Your task to perform on an android device: Open calendar and show me the third week of next month Image 0: 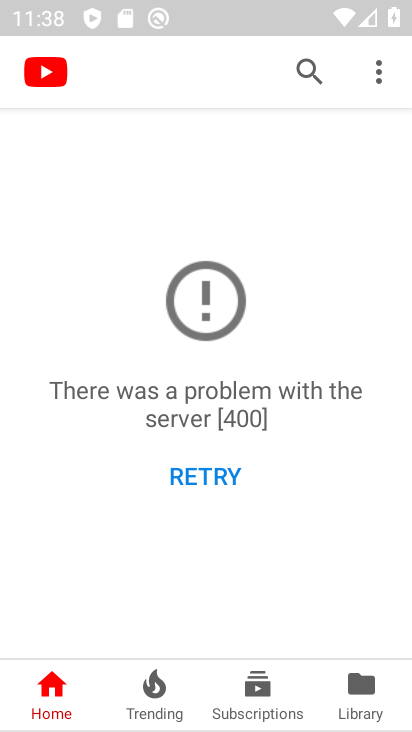
Step 0: press home button
Your task to perform on an android device: Open calendar and show me the third week of next month Image 1: 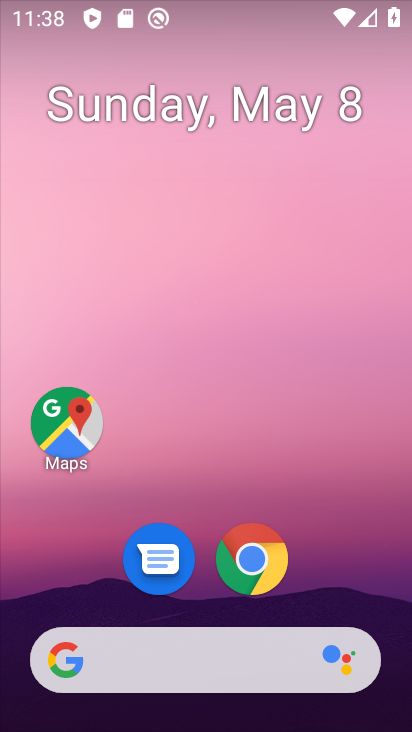
Step 1: drag from (208, 606) to (214, 67)
Your task to perform on an android device: Open calendar and show me the third week of next month Image 2: 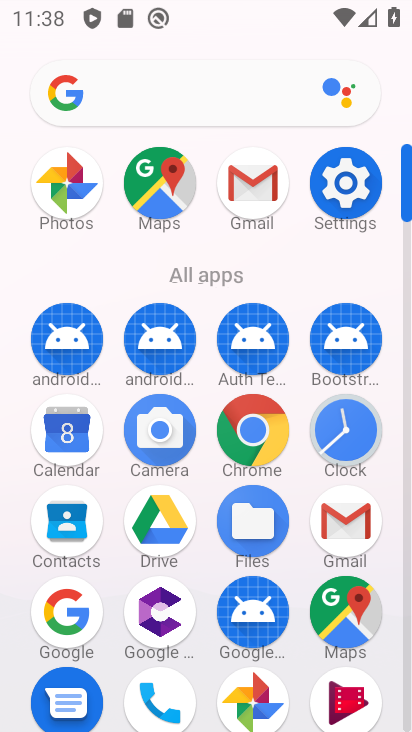
Step 2: click (61, 433)
Your task to perform on an android device: Open calendar and show me the third week of next month Image 3: 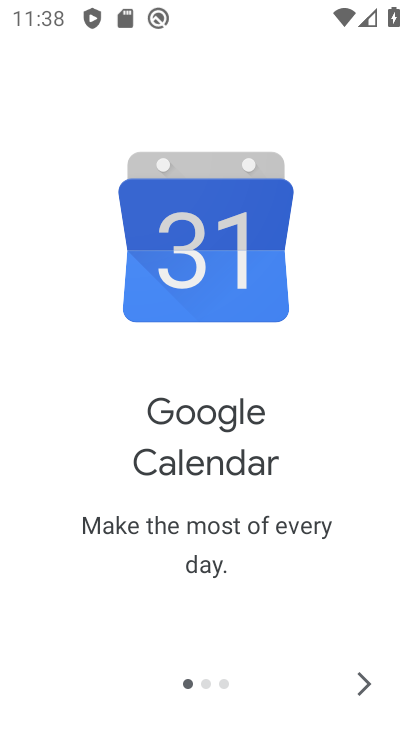
Step 3: click (366, 682)
Your task to perform on an android device: Open calendar and show me the third week of next month Image 4: 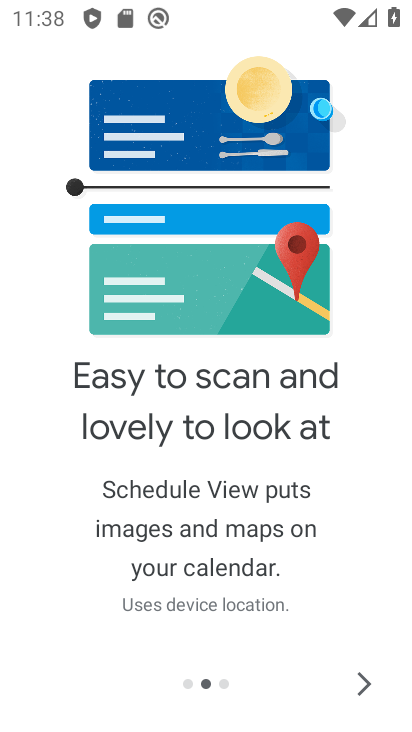
Step 4: click (364, 680)
Your task to perform on an android device: Open calendar and show me the third week of next month Image 5: 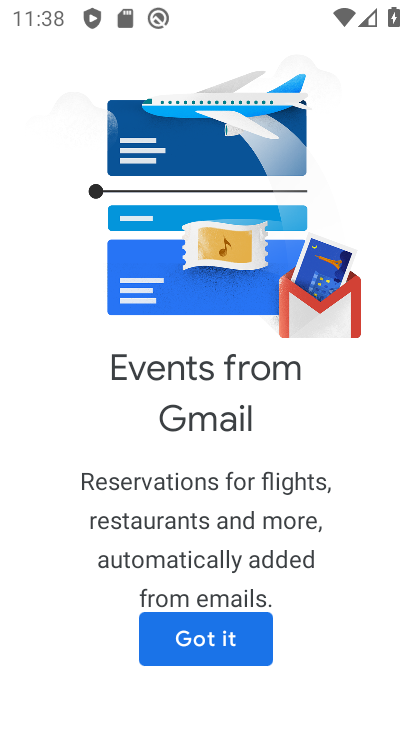
Step 5: click (187, 630)
Your task to perform on an android device: Open calendar and show me the third week of next month Image 6: 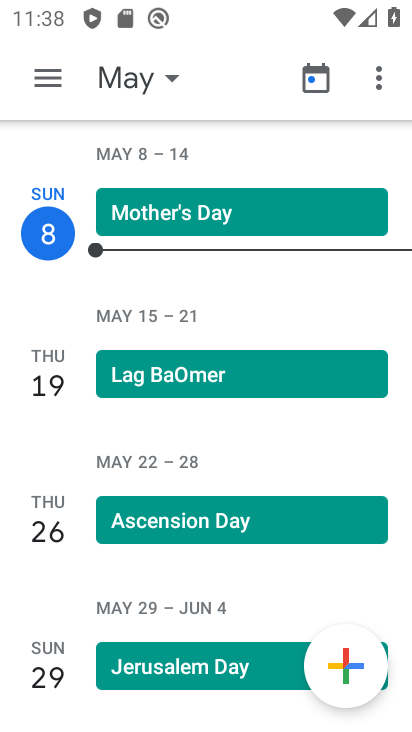
Step 6: click (37, 79)
Your task to perform on an android device: Open calendar and show me the third week of next month Image 7: 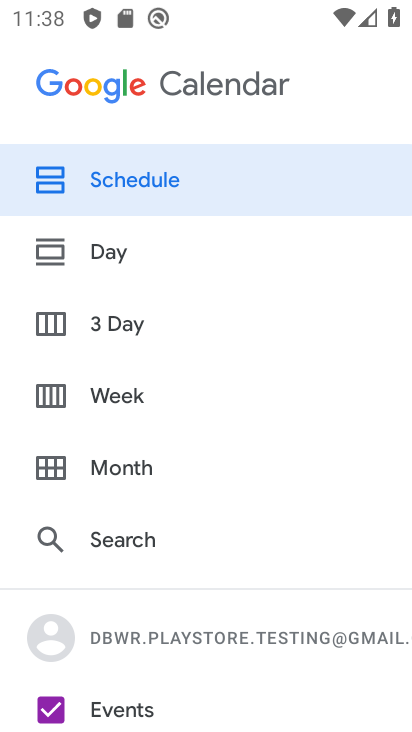
Step 7: click (127, 388)
Your task to perform on an android device: Open calendar and show me the third week of next month Image 8: 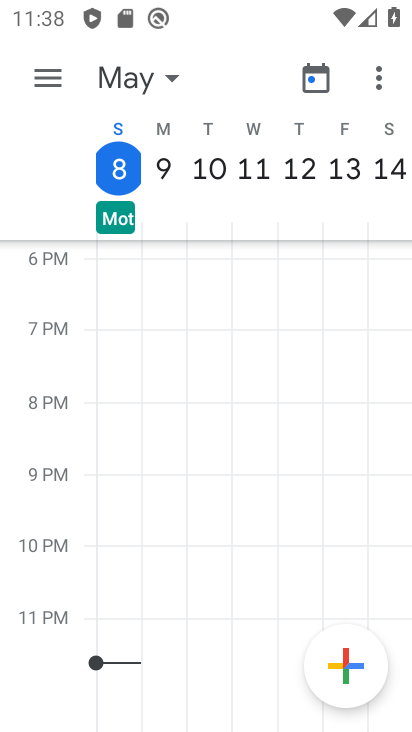
Step 8: task complete